Your task to perform on an android device: Clear the cart on walmart.com. Image 0: 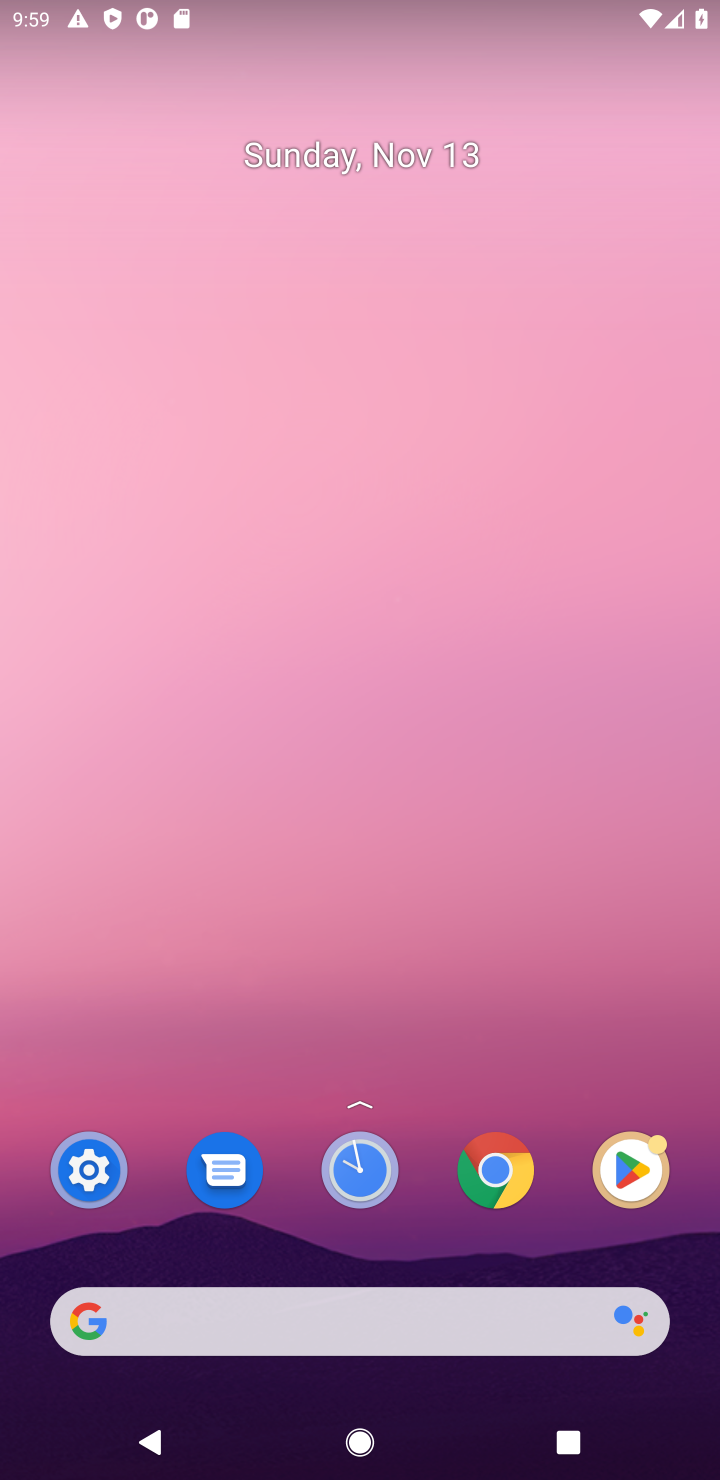
Step 0: click (183, 1312)
Your task to perform on an android device: Clear the cart on walmart.com. Image 1: 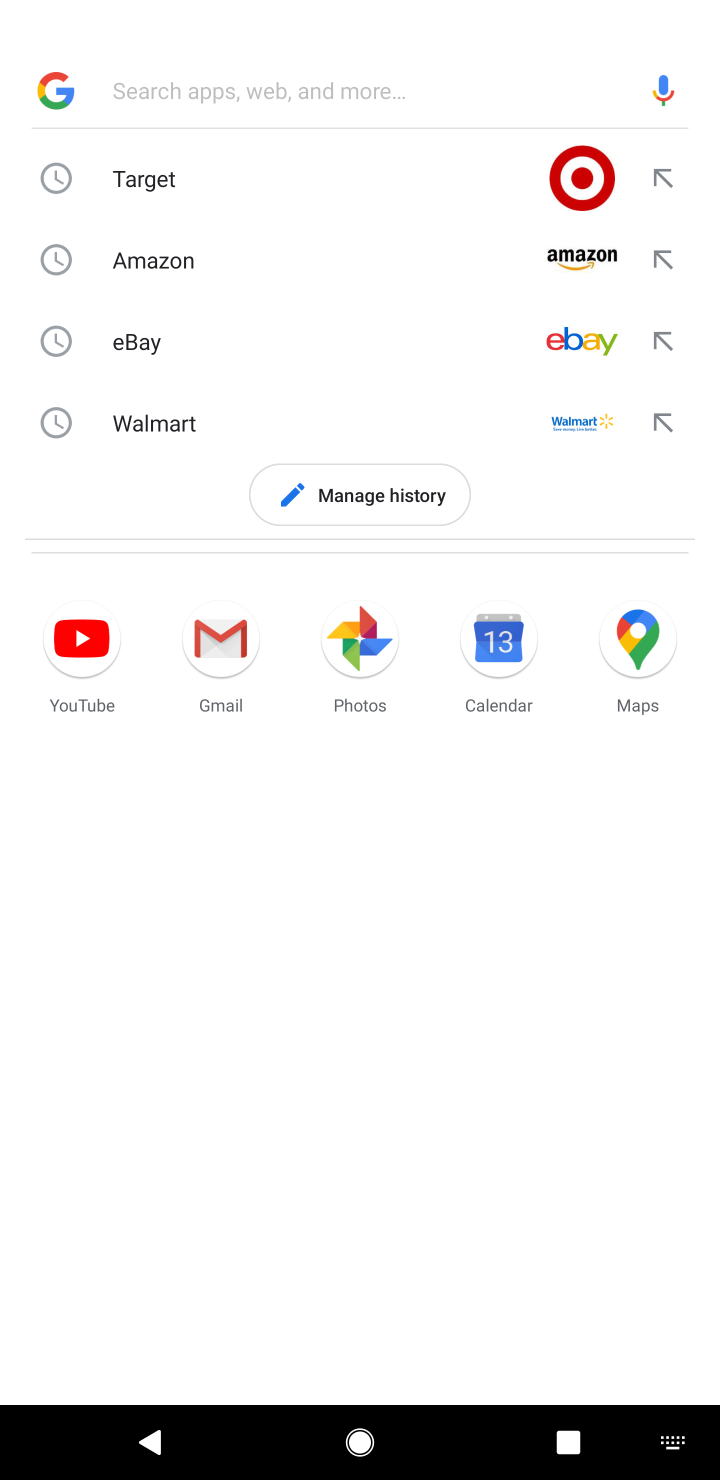
Step 1: type "walmart"
Your task to perform on an android device: Clear the cart on walmart.com. Image 2: 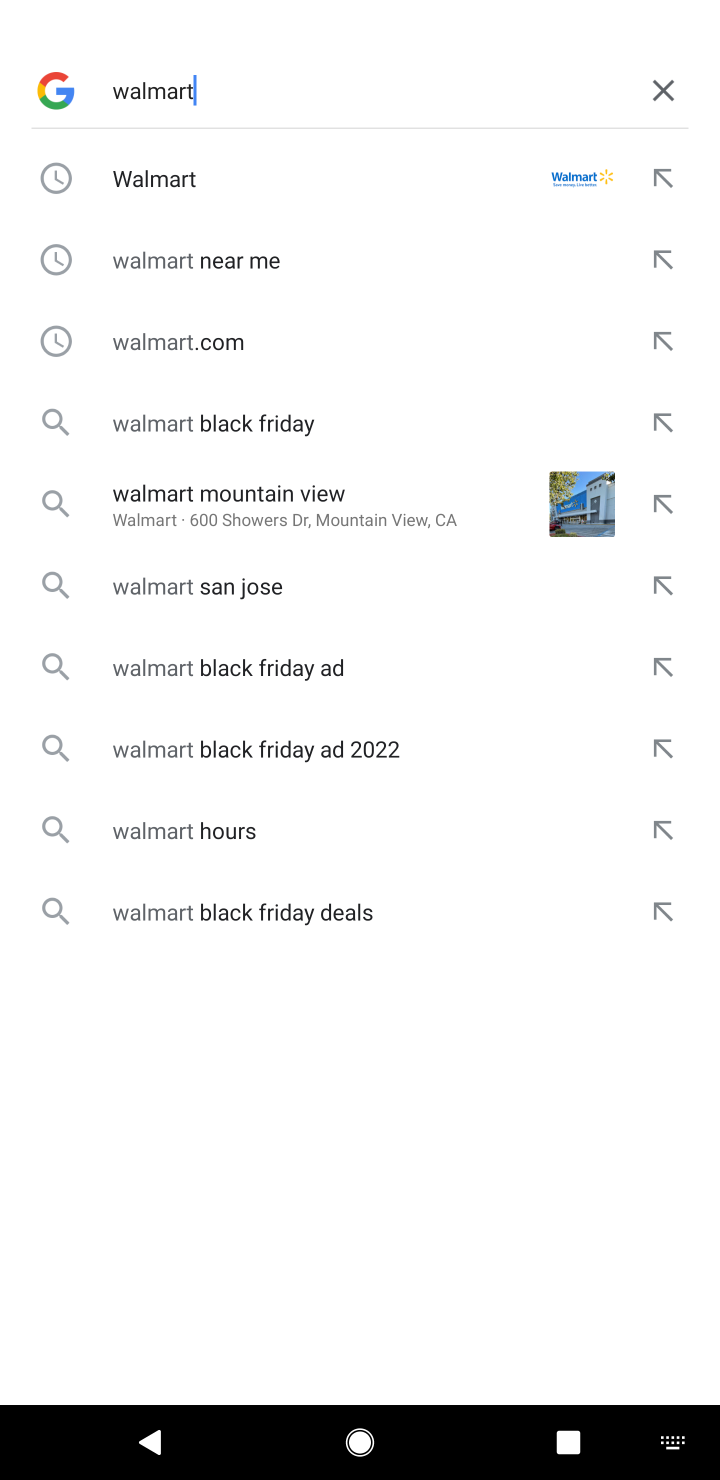
Step 2: click (234, 207)
Your task to perform on an android device: Clear the cart on walmart.com. Image 3: 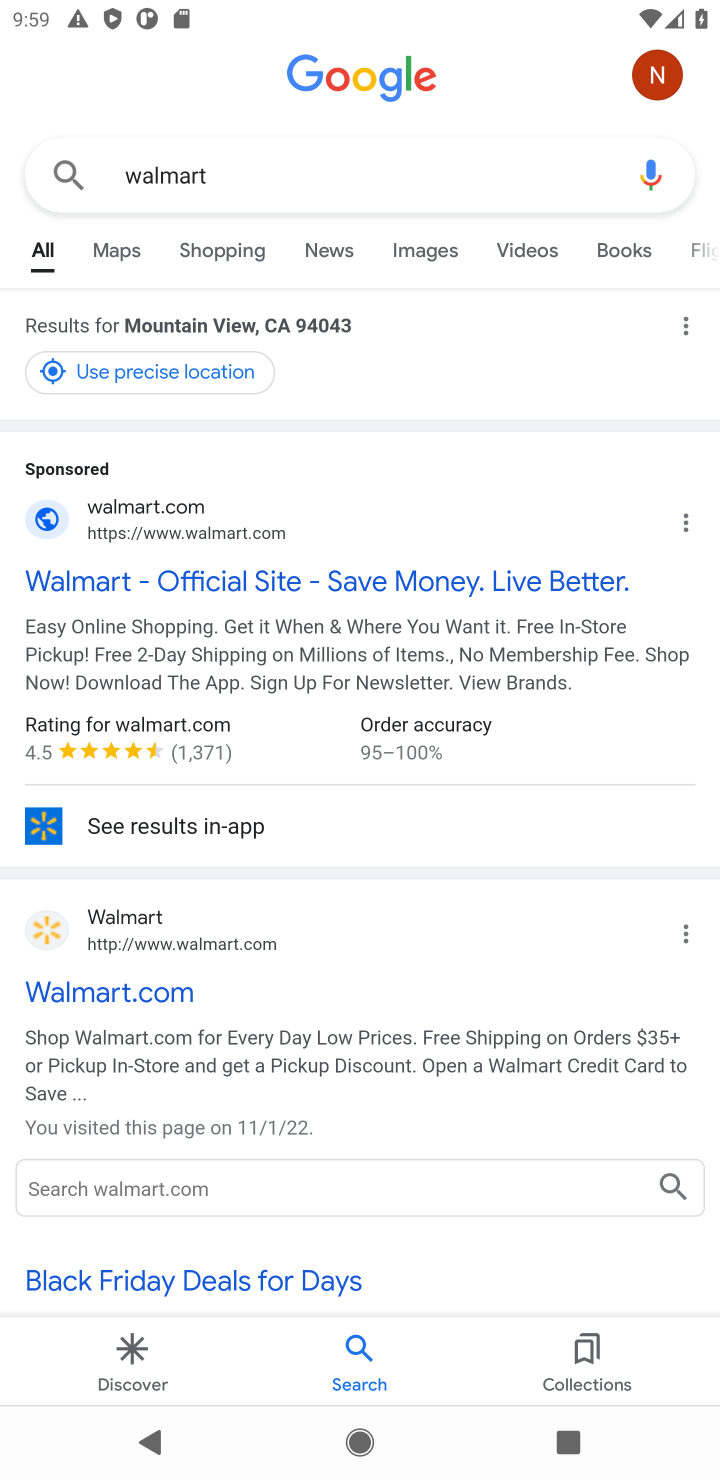
Step 3: click (171, 572)
Your task to perform on an android device: Clear the cart on walmart.com. Image 4: 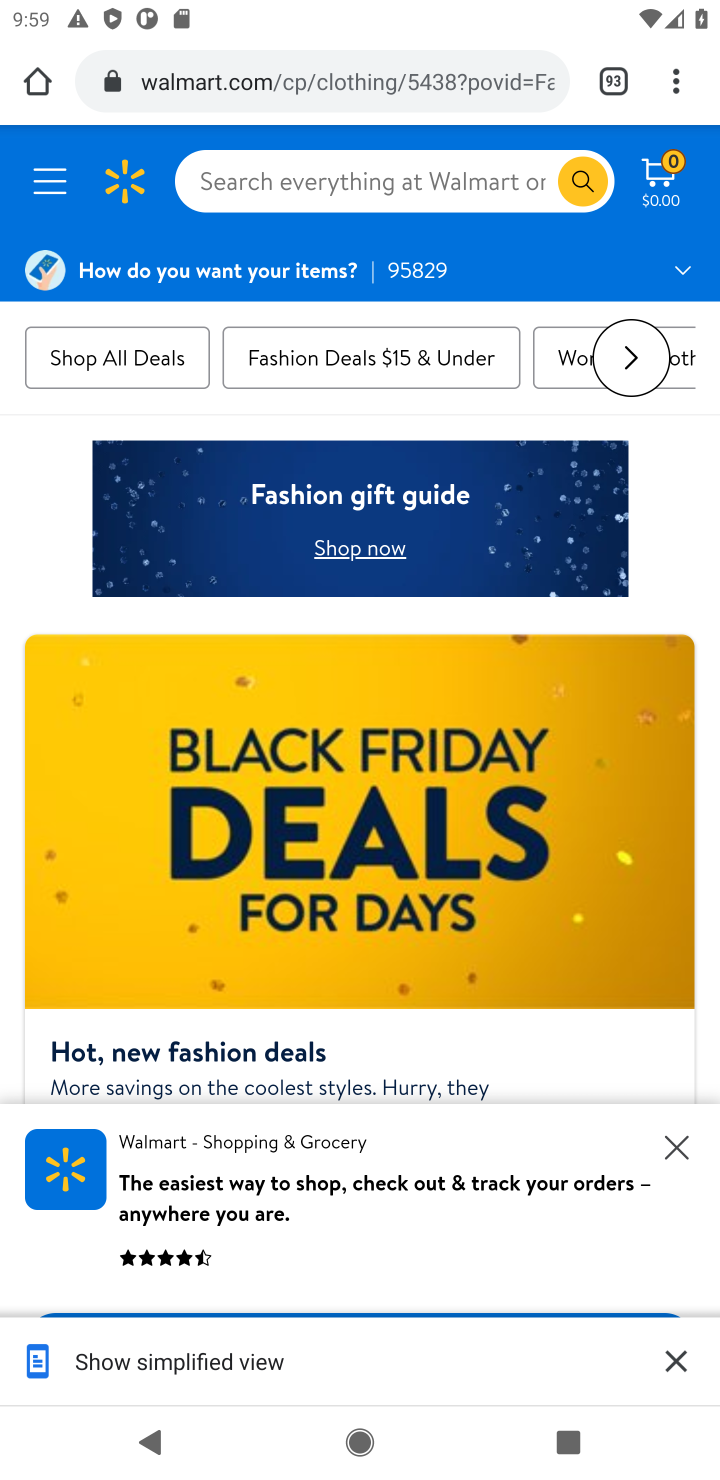
Step 4: task complete